Your task to perform on an android device: Open eBay Image 0: 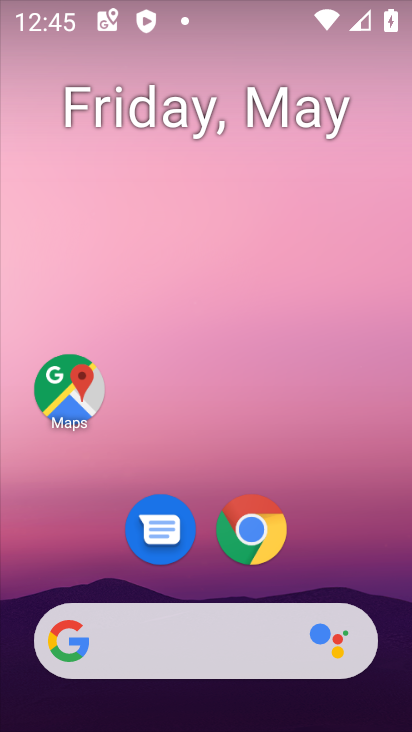
Step 0: click (250, 625)
Your task to perform on an android device: Open eBay Image 1: 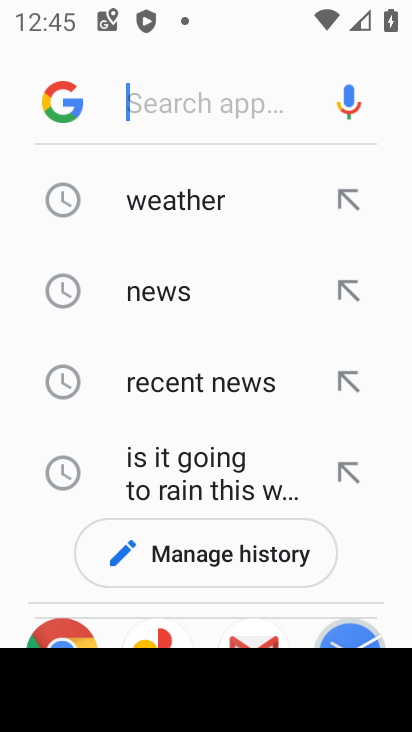
Step 1: type "ebsy.com"
Your task to perform on an android device: Open eBay Image 2: 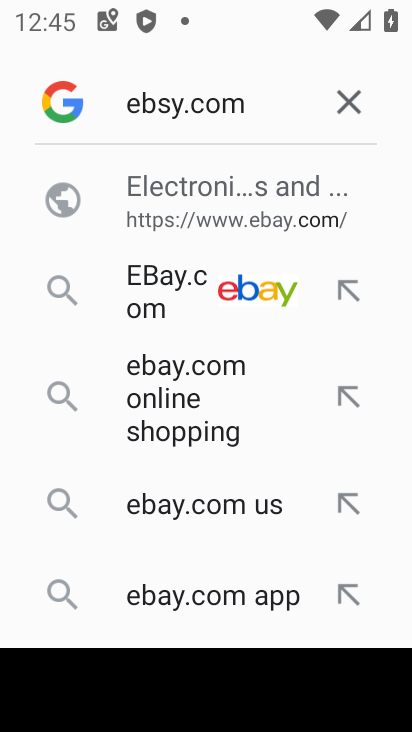
Step 2: click (158, 186)
Your task to perform on an android device: Open eBay Image 3: 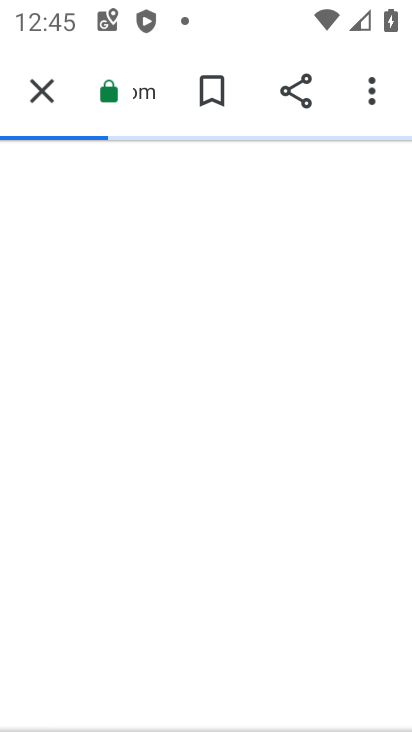
Step 3: task complete